Your task to perform on an android device: Search for Italian restaurants on Maps Image 0: 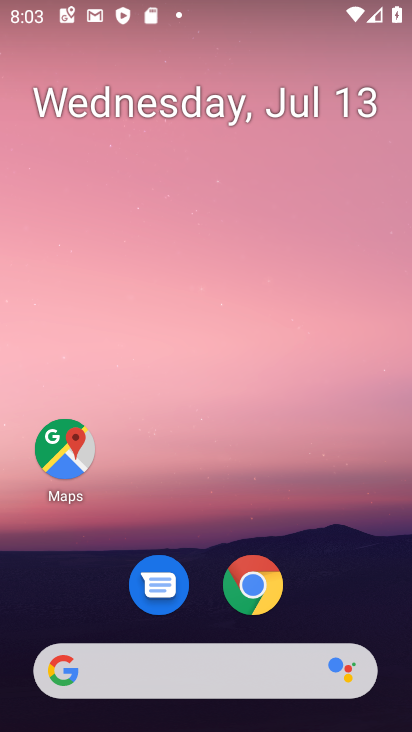
Step 0: click (65, 446)
Your task to perform on an android device: Search for Italian restaurants on Maps Image 1: 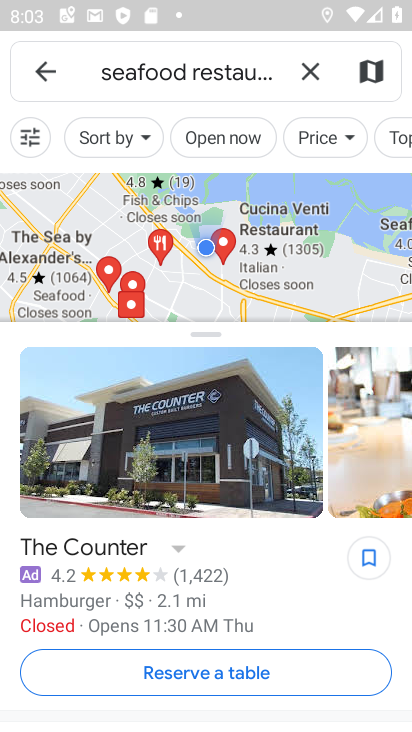
Step 1: click (313, 74)
Your task to perform on an android device: Search for Italian restaurants on Maps Image 2: 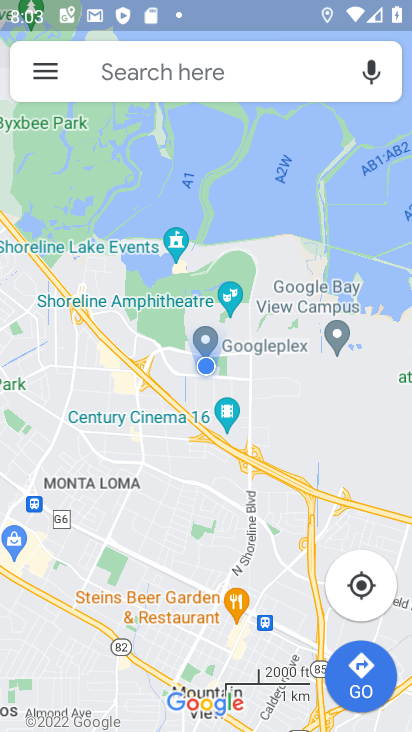
Step 2: click (252, 76)
Your task to perform on an android device: Search for Italian restaurants on Maps Image 3: 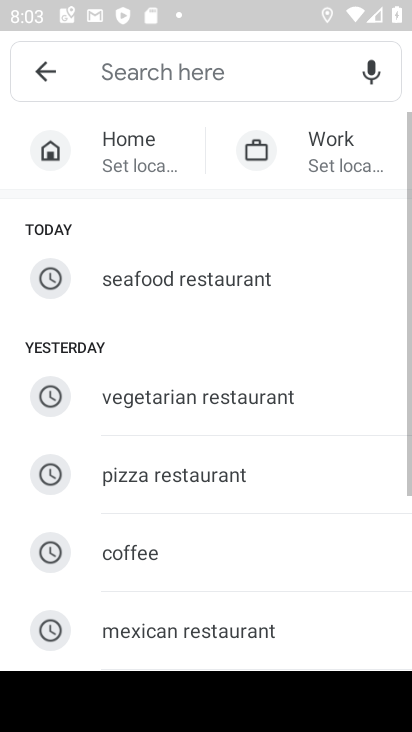
Step 3: drag from (246, 523) to (238, 268)
Your task to perform on an android device: Search for Italian restaurants on Maps Image 4: 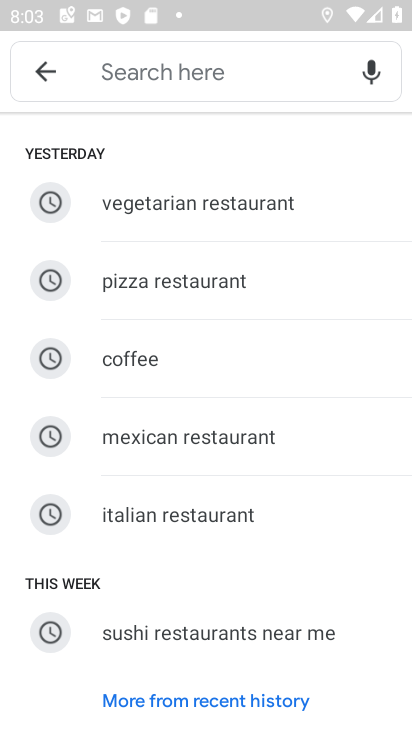
Step 4: click (226, 519)
Your task to perform on an android device: Search for Italian restaurants on Maps Image 5: 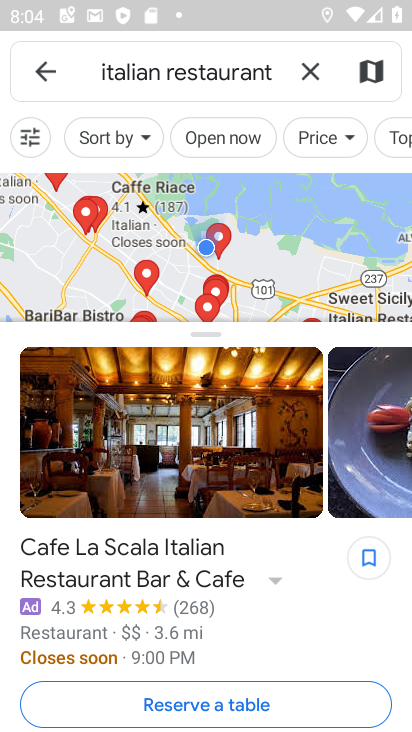
Step 5: task complete